Your task to perform on an android device: When is my next appointment? Image 0: 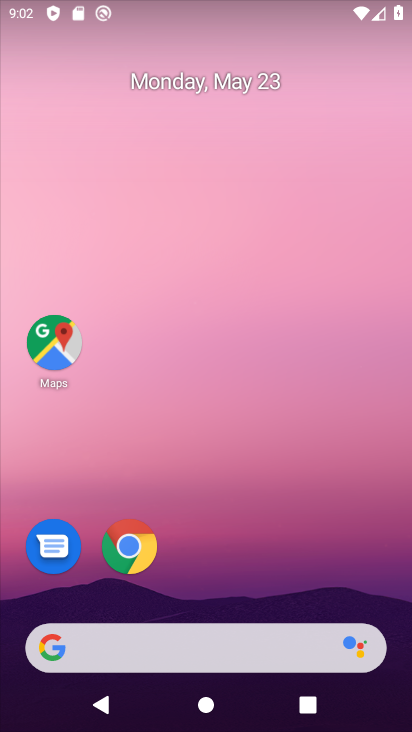
Step 0: drag from (270, 566) to (224, 160)
Your task to perform on an android device: When is my next appointment? Image 1: 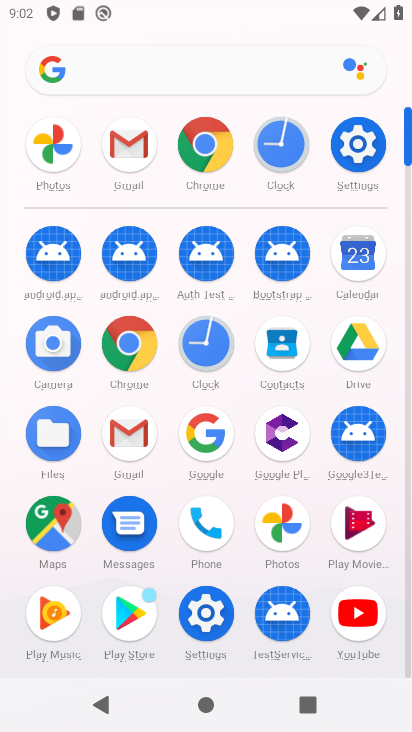
Step 1: click (363, 260)
Your task to perform on an android device: When is my next appointment? Image 2: 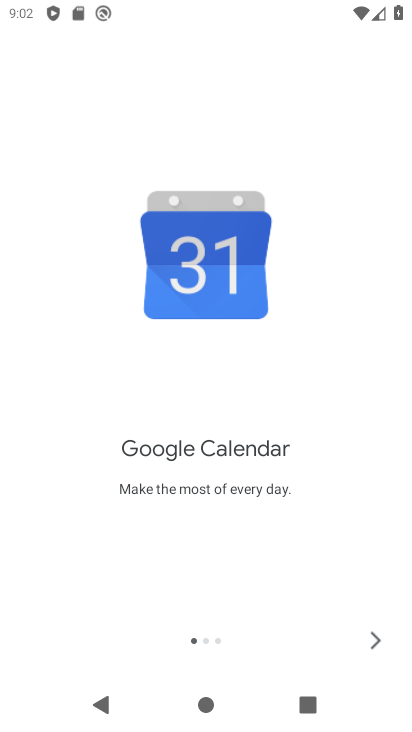
Step 2: click (359, 643)
Your task to perform on an android device: When is my next appointment? Image 3: 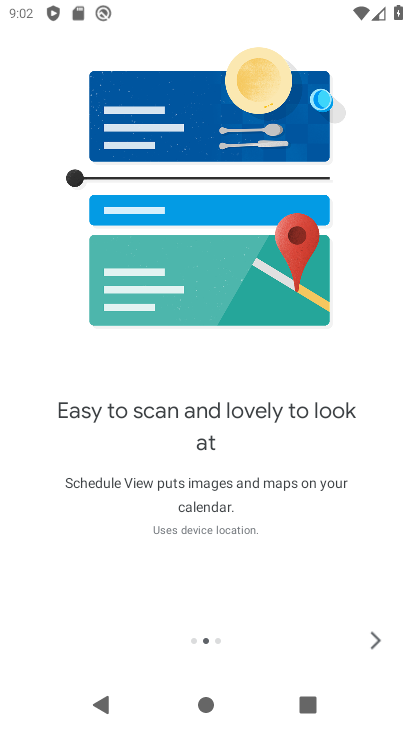
Step 3: click (359, 643)
Your task to perform on an android device: When is my next appointment? Image 4: 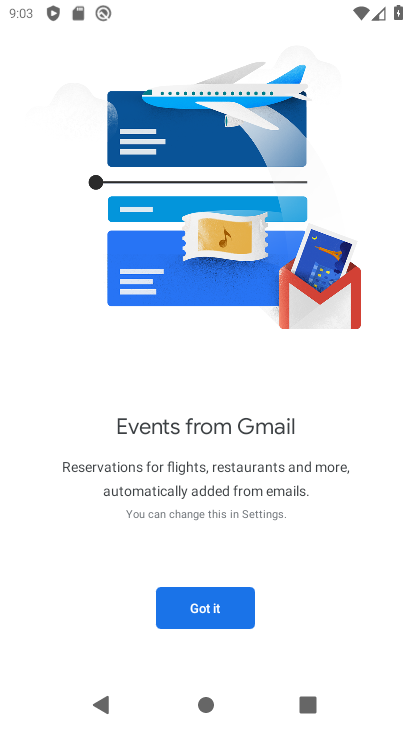
Step 4: click (190, 612)
Your task to perform on an android device: When is my next appointment? Image 5: 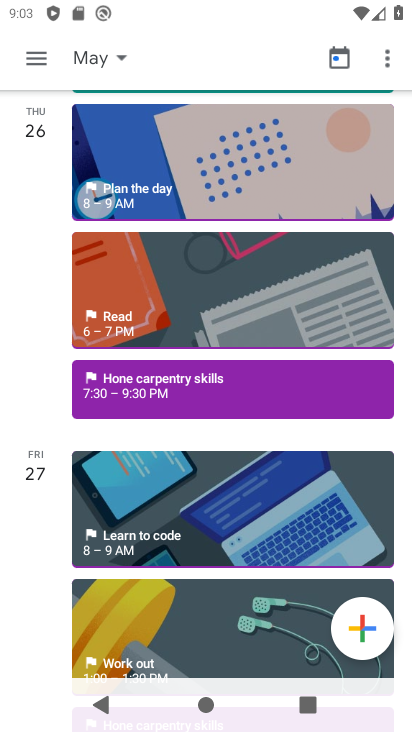
Step 5: click (49, 61)
Your task to perform on an android device: When is my next appointment? Image 6: 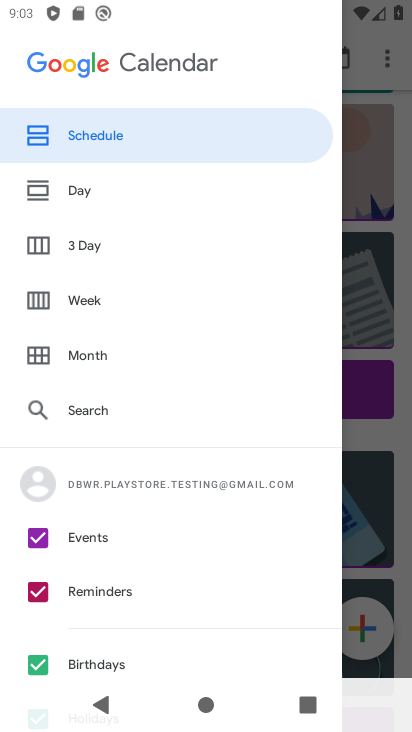
Step 6: click (371, 156)
Your task to perform on an android device: When is my next appointment? Image 7: 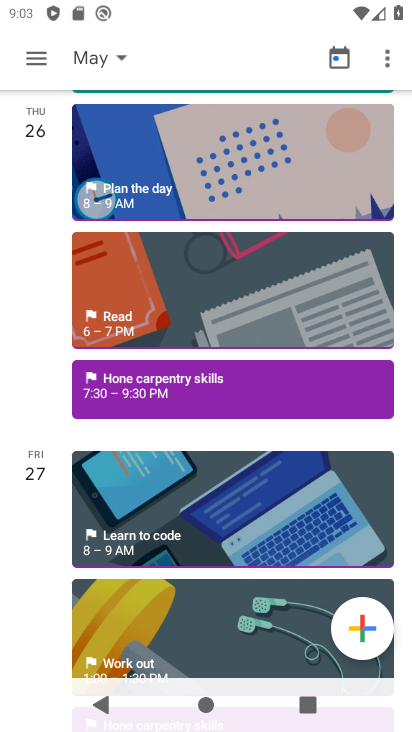
Step 7: click (77, 55)
Your task to perform on an android device: When is my next appointment? Image 8: 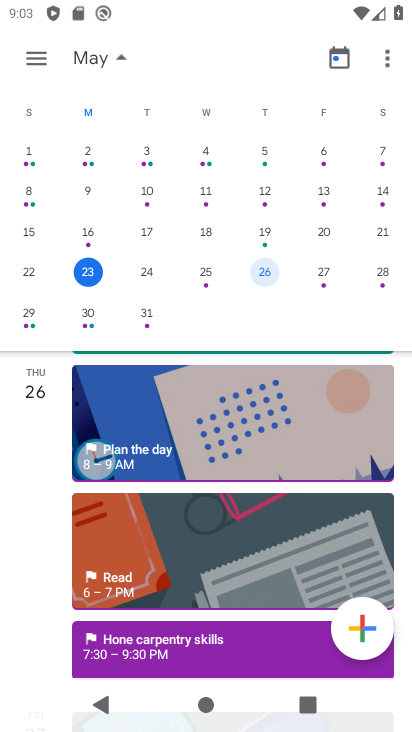
Step 8: click (96, 265)
Your task to perform on an android device: When is my next appointment? Image 9: 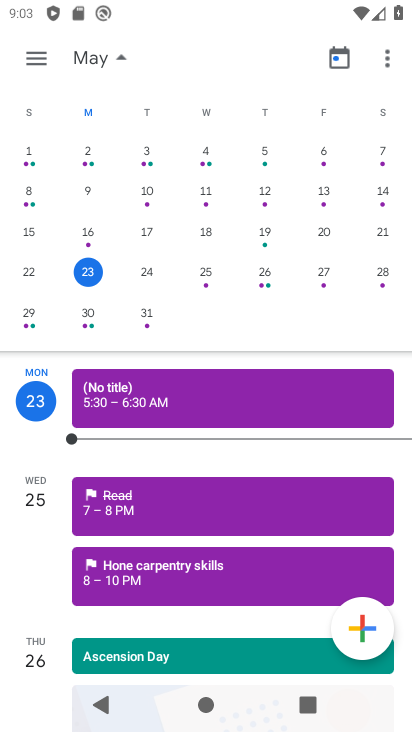
Step 9: click (44, 393)
Your task to perform on an android device: When is my next appointment? Image 10: 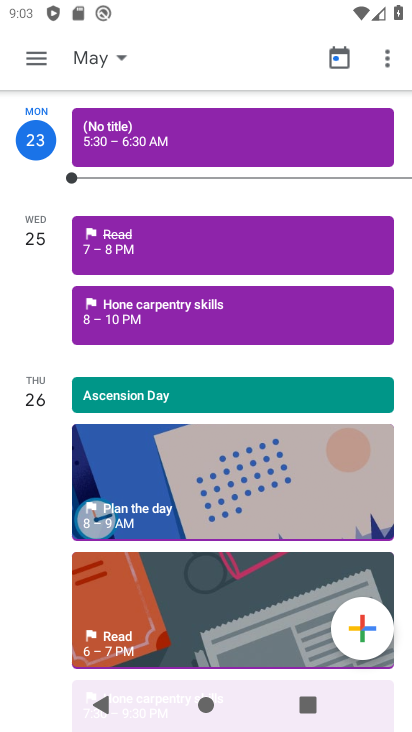
Step 10: task complete